Your task to perform on an android device: Search for Italian restaurants on Maps Image 0: 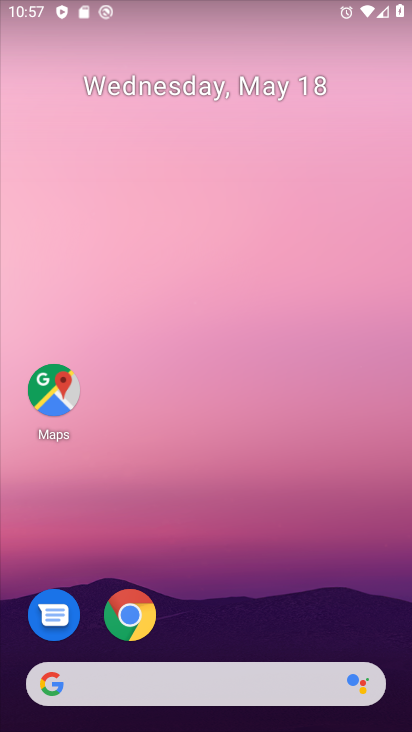
Step 0: drag from (224, 647) to (208, 274)
Your task to perform on an android device: Search for Italian restaurants on Maps Image 1: 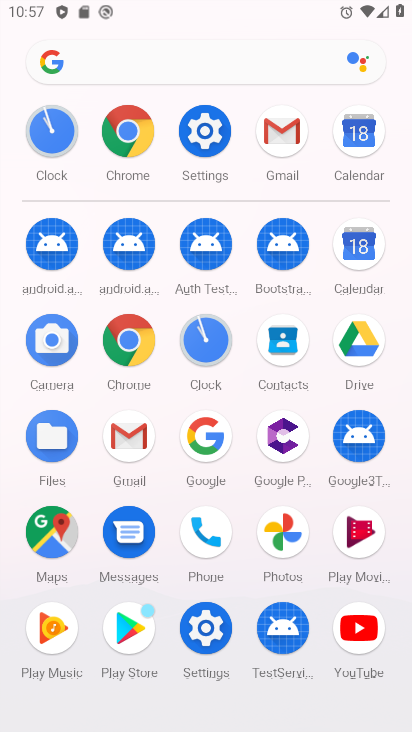
Step 1: click (39, 535)
Your task to perform on an android device: Search for Italian restaurants on Maps Image 2: 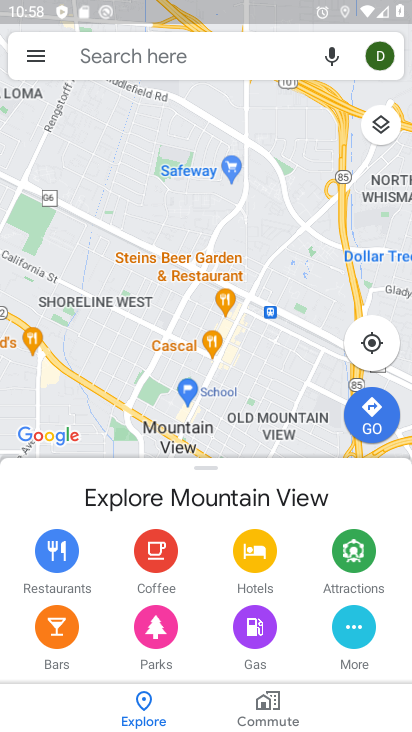
Step 2: click (169, 50)
Your task to perform on an android device: Search for Italian restaurants on Maps Image 3: 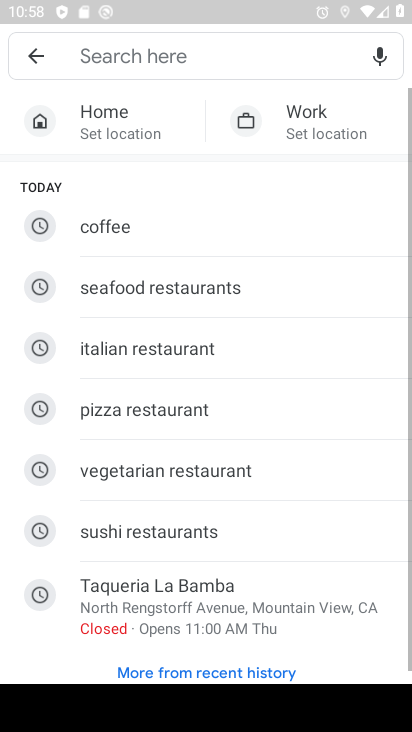
Step 3: click (201, 348)
Your task to perform on an android device: Search for Italian restaurants on Maps Image 4: 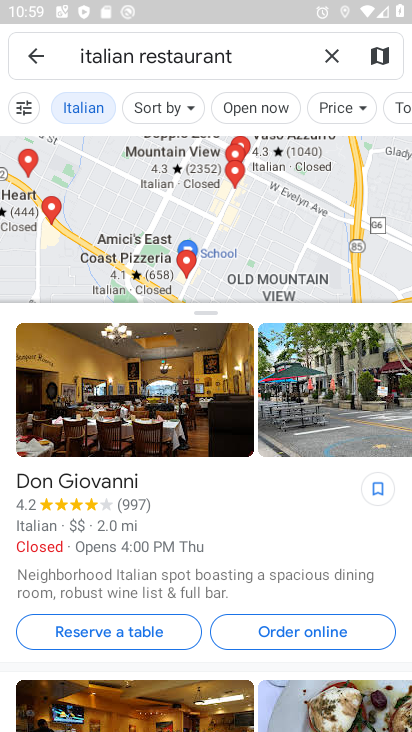
Step 4: task complete